Your task to perform on an android device: check data usage Image 0: 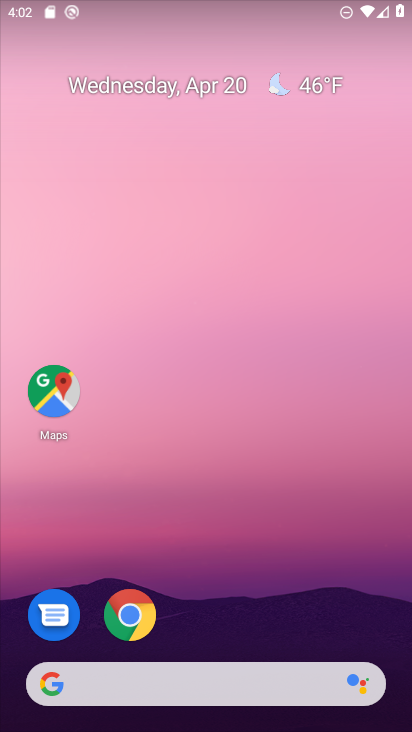
Step 0: drag from (229, 561) to (361, 81)
Your task to perform on an android device: check data usage Image 1: 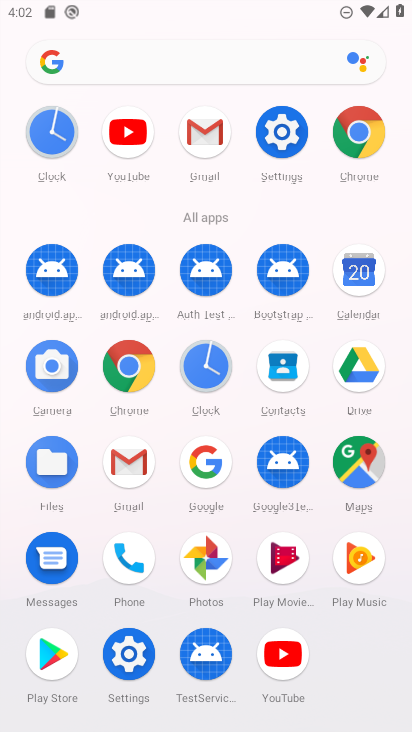
Step 1: click (286, 144)
Your task to perform on an android device: check data usage Image 2: 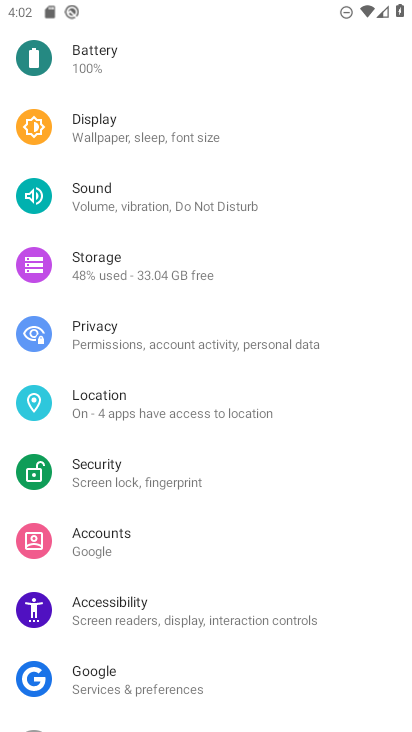
Step 2: drag from (191, 167) to (128, 493)
Your task to perform on an android device: check data usage Image 3: 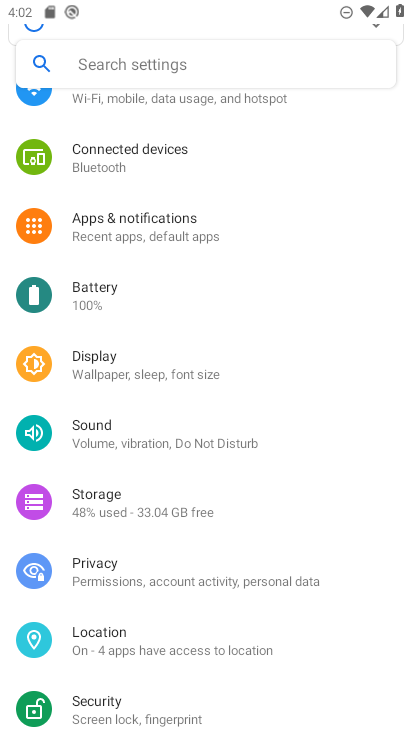
Step 3: drag from (211, 223) to (138, 541)
Your task to perform on an android device: check data usage Image 4: 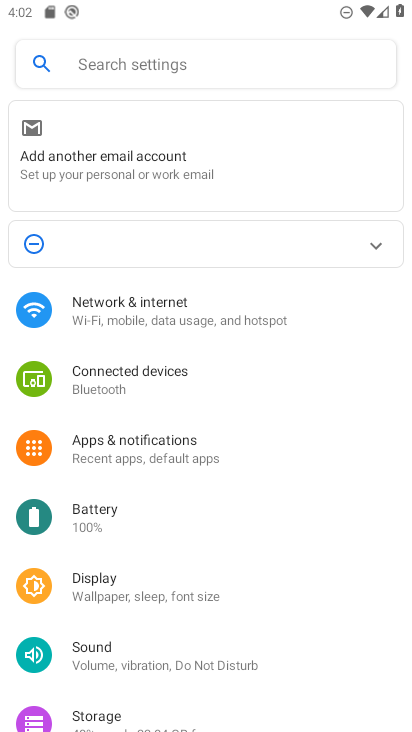
Step 4: drag from (259, 257) to (228, 476)
Your task to perform on an android device: check data usage Image 5: 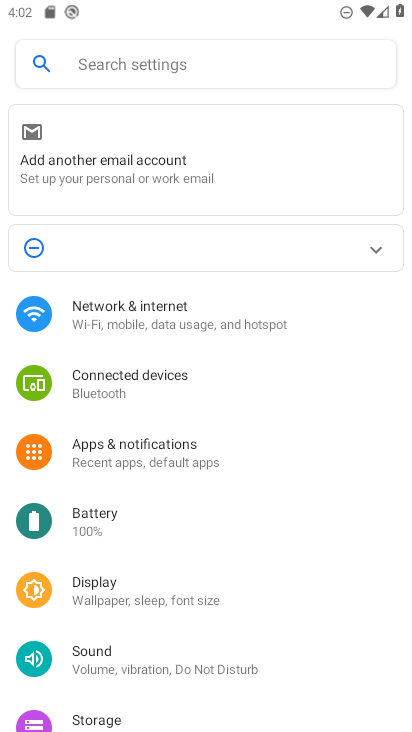
Step 5: click (152, 322)
Your task to perform on an android device: check data usage Image 6: 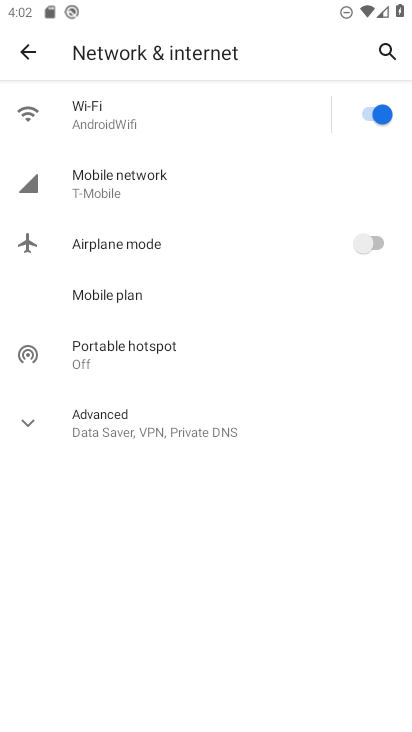
Step 6: click (99, 198)
Your task to perform on an android device: check data usage Image 7: 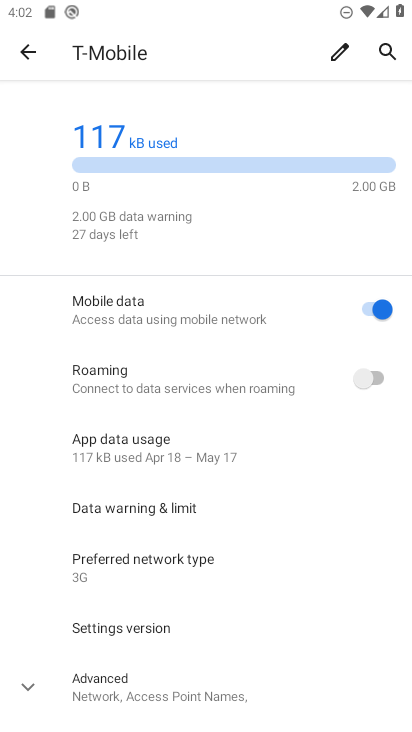
Step 7: click (192, 177)
Your task to perform on an android device: check data usage Image 8: 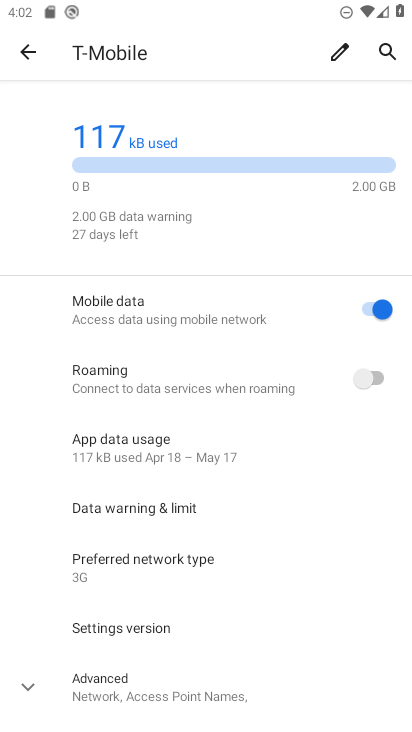
Step 8: task complete